Your task to perform on an android device: Go to accessibility settings Image 0: 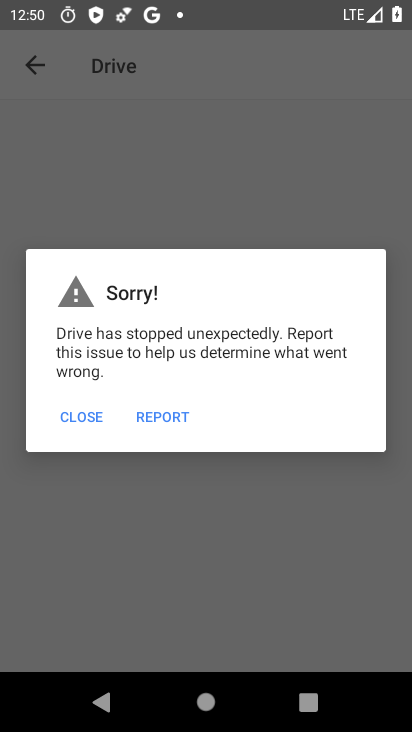
Step 0: press back button
Your task to perform on an android device: Go to accessibility settings Image 1: 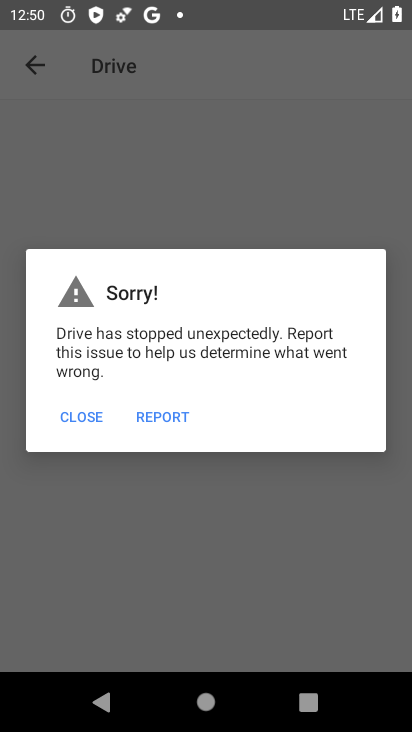
Step 1: click (82, 415)
Your task to perform on an android device: Go to accessibility settings Image 2: 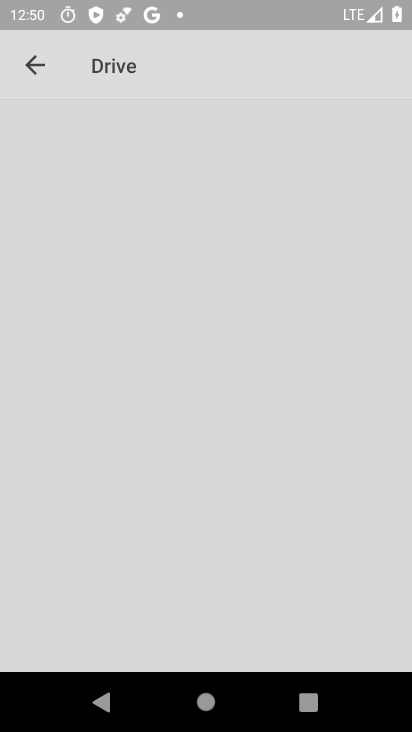
Step 2: click (74, 418)
Your task to perform on an android device: Go to accessibility settings Image 3: 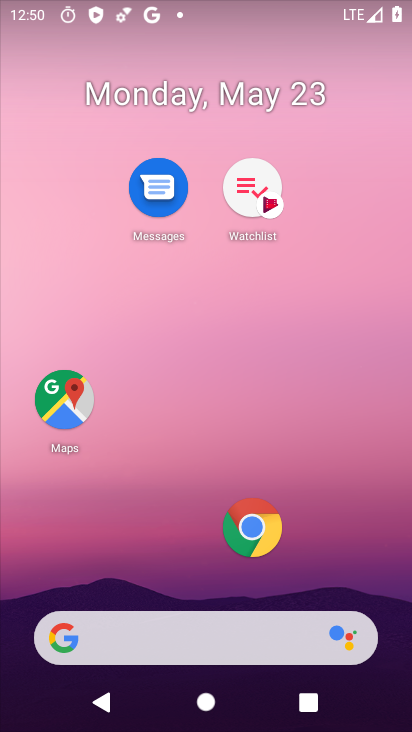
Step 3: drag from (167, 406) to (133, 267)
Your task to perform on an android device: Go to accessibility settings Image 4: 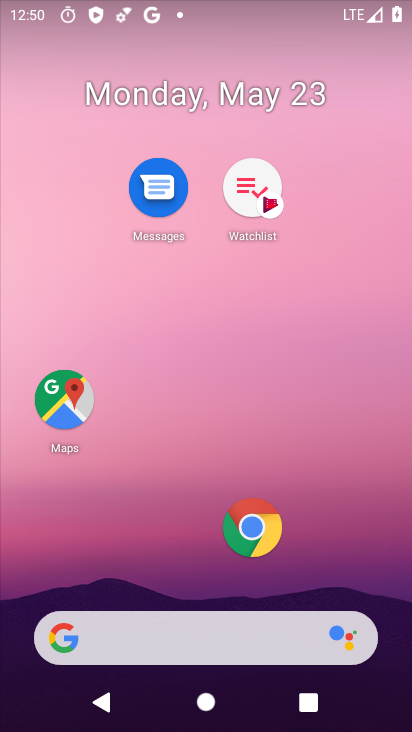
Step 4: drag from (248, 684) to (221, 320)
Your task to perform on an android device: Go to accessibility settings Image 5: 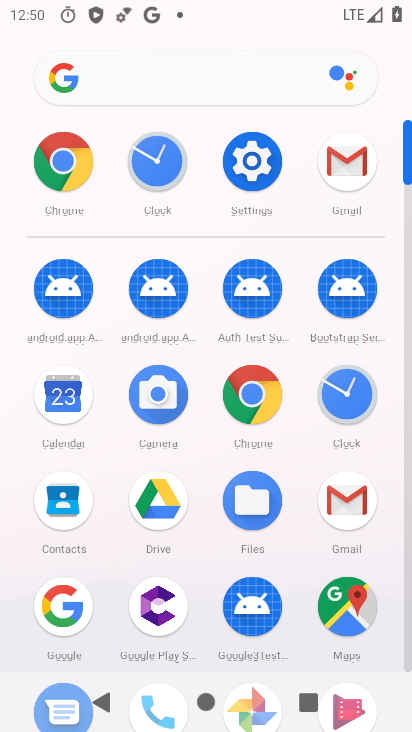
Step 5: click (239, 148)
Your task to perform on an android device: Go to accessibility settings Image 6: 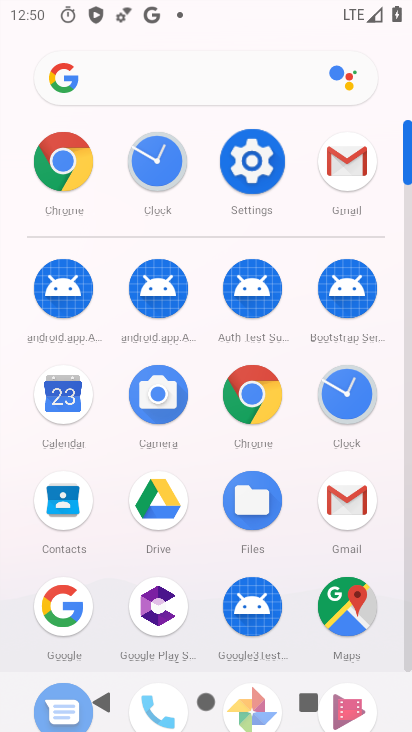
Step 6: click (247, 155)
Your task to perform on an android device: Go to accessibility settings Image 7: 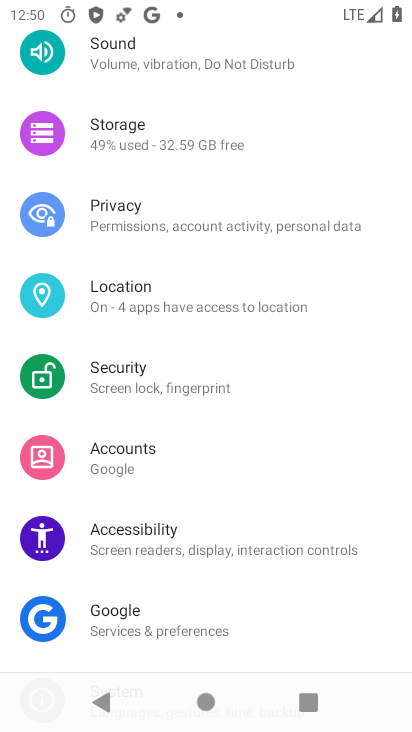
Step 7: drag from (150, 584) to (98, 327)
Your task to perform on an android device: Go to accessibility settings Image 8: 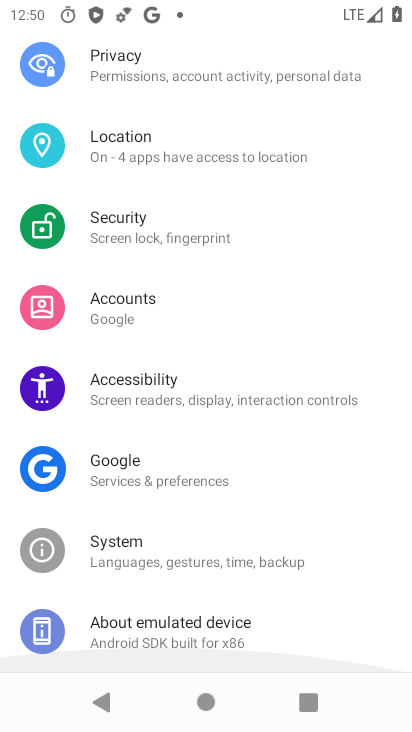
Step 8: drag from (169, 475) to (185, 268)
Your task to perform on an android device: Go to accessibility settings Image 9: 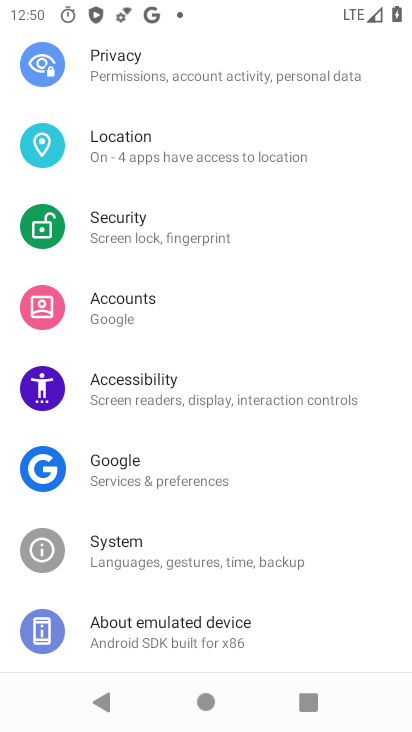
Step 9: click (150, 384)
Your task to perform on an android device: Go to accessibility settings Image 10: 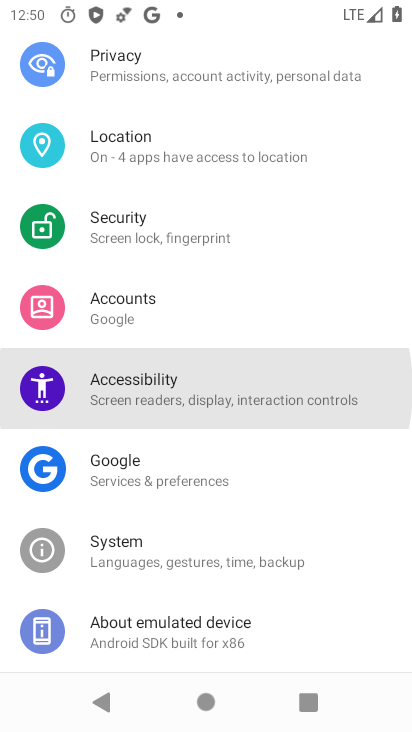
Step 10: click (150, 384)
Your task to perform on an android device: Go to accessibility settings Image 11: 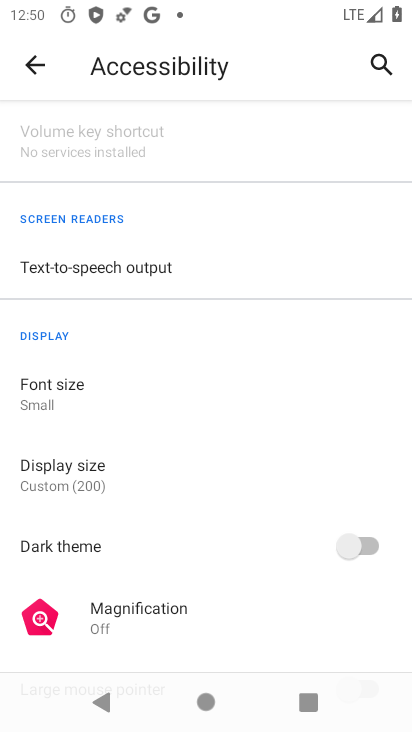
Step 11: task complete